Your task to perform on an android device: turn off data saver in the chrome app Image 0: 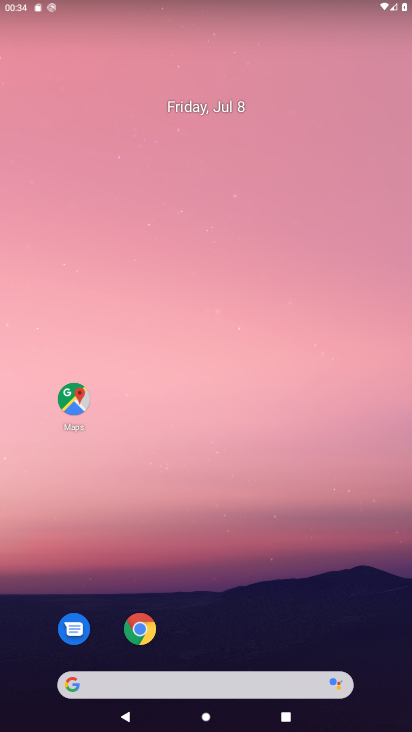
Step 0: click (143, 622)
Your task to perform on an android device: turn off data saver in the chrome app Image 1: 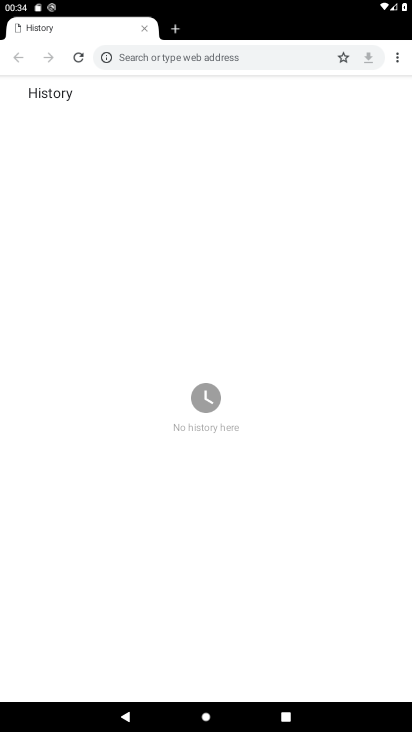
Step 1: click (402, 58)
Your task to perform on an android device: turn off data saver in the chrome app Image 2: 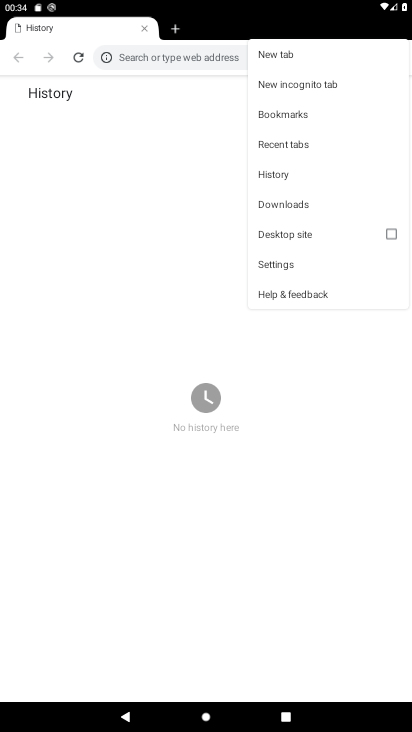
Step 2: click (292, 261)
Your task to perform on an android device: turn off data saver in the chrome app Image 3: 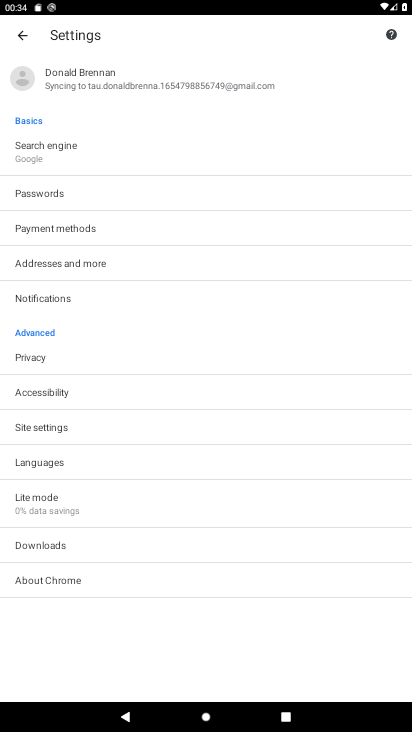
Step 3: click (104, 504)
Your task to perform on an android device: turn off data saver in the chrome app Image 4: 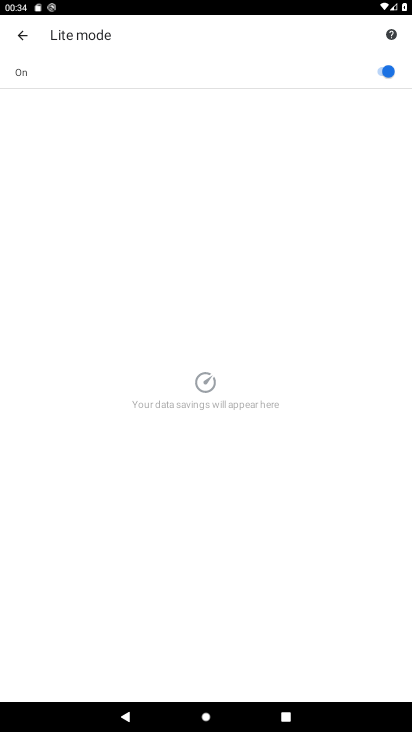
Step 4: click (381, 67)
Your task to perform on an android device: turn off data saver in the chrome app Image 5: 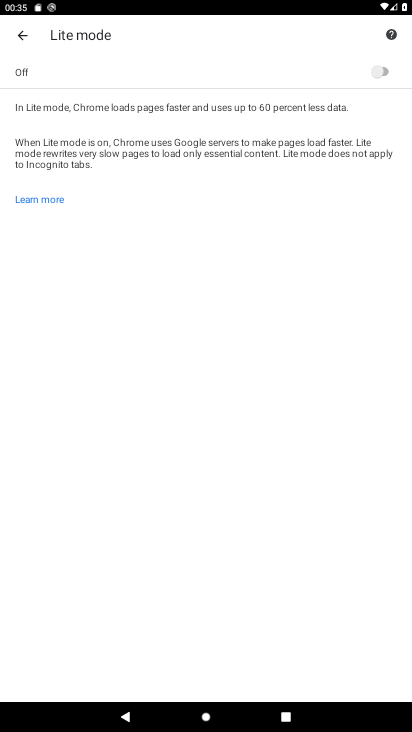
Step 5: task complete